Your task to perform on an android device: install app "PlayWell" Image 0: 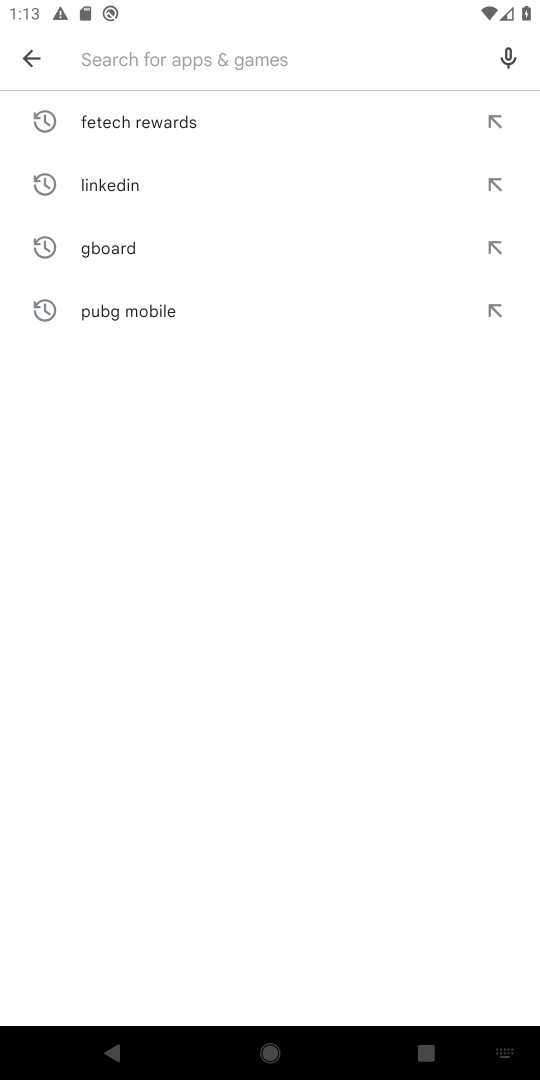
Step 0: type "PlayWell"
Your task to perform on an android device: install app "PlayWell" Image 1: 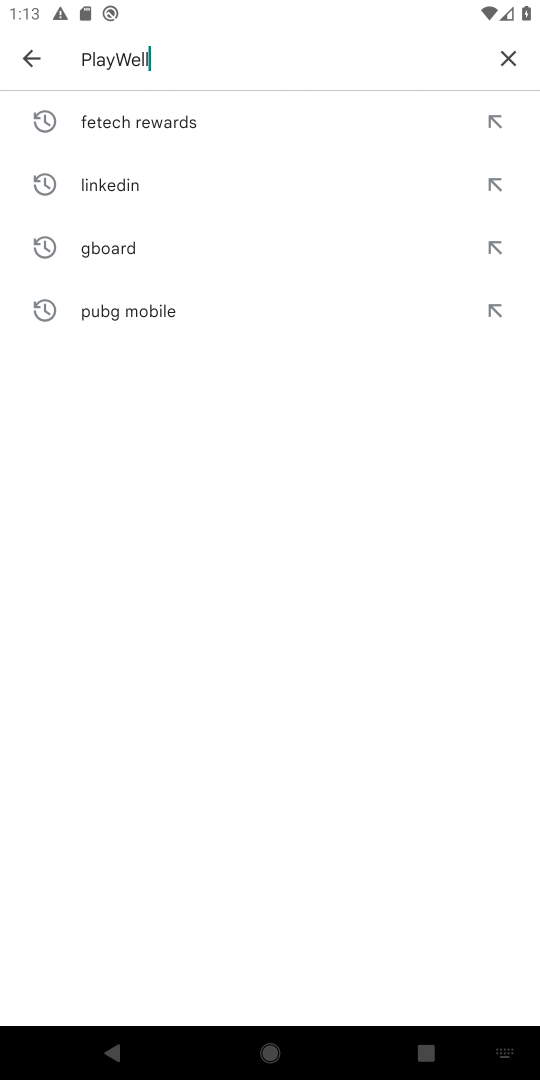
Step 1: type ""
Your task to perform on an android device: install app "PlayWell" Image 2: 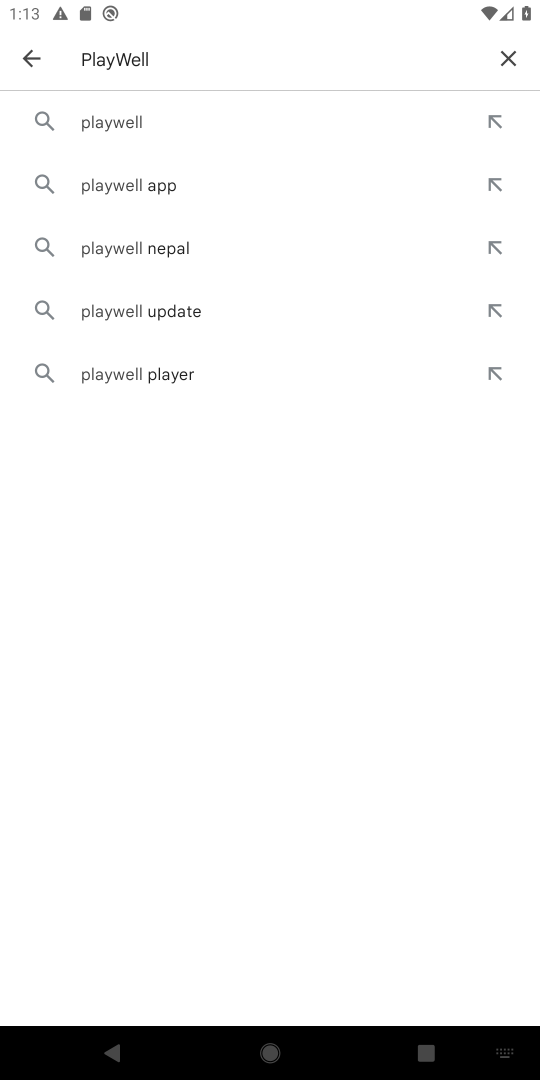
Step 2: click (127, 122)
Your task to perform on an android device: install app "PlayWell" Image 3: 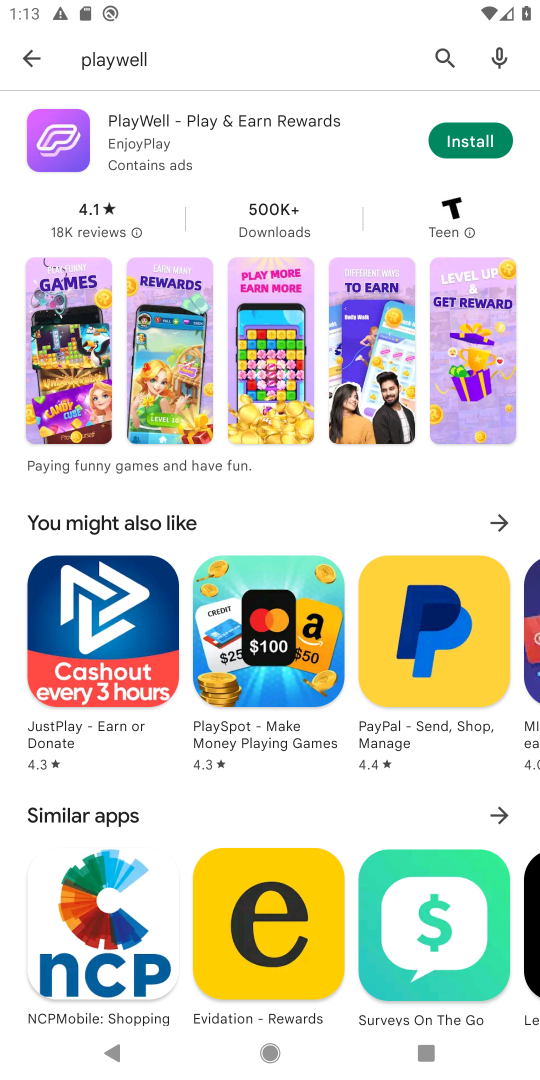
Step 3: click (488, 141)
Your task to perform on an android device: install app "PlayWell" Image 4: 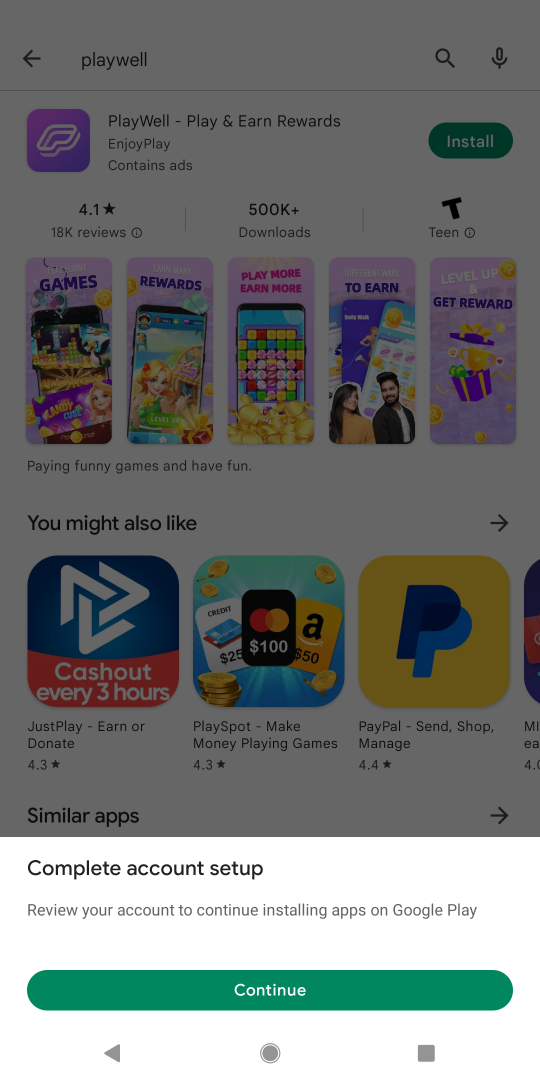
Step 4: click (260, 987)
Your task to perform on an android device: install app "PlayWell" Image 5: 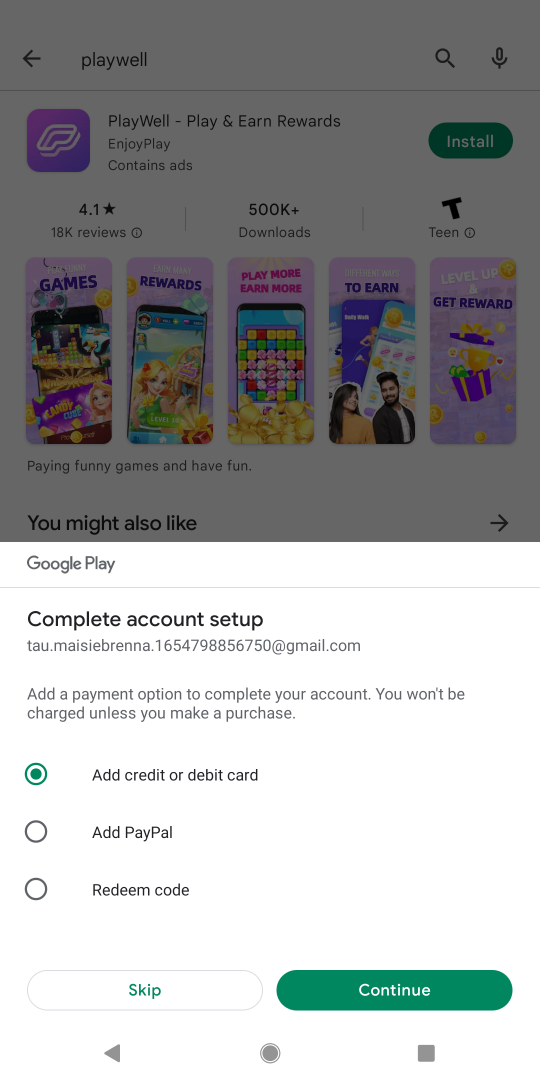
Step 5: click (191, 984)
Your task to perform on an android device: install app "PlayWell" Image 6: 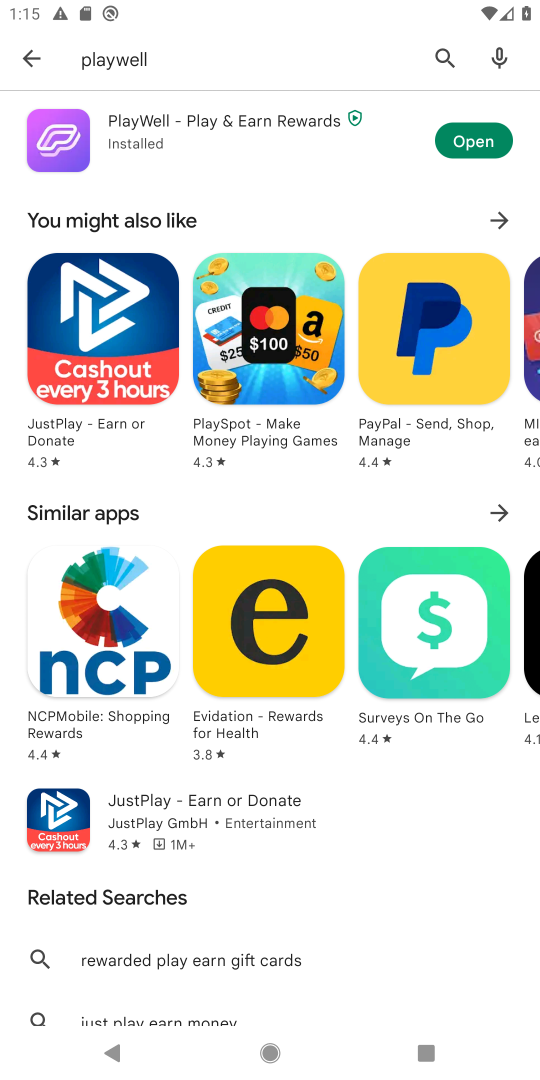
Step 6: task complete